Your task to perform on an android device: set default search engine in the chrome app Image 0: 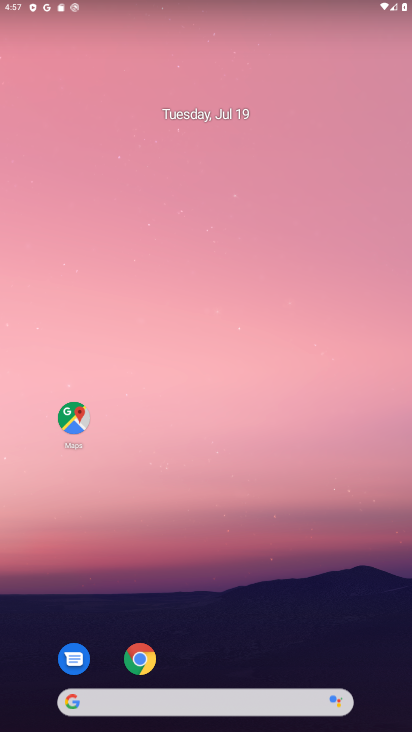
Step 0: drag from (242, 609) to (219, 98)
Your task to perform on an android device: set default search engine in the chrome app Image 1: 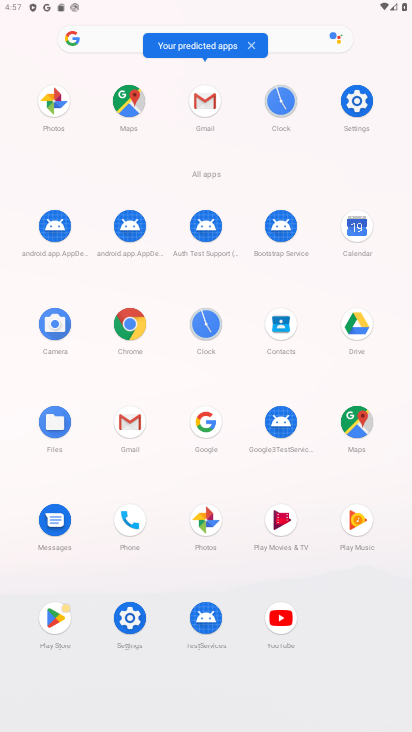
Step 1: click (124, 324)
Your task to perform on an android device: set default search engine in the chrome app Image 2: 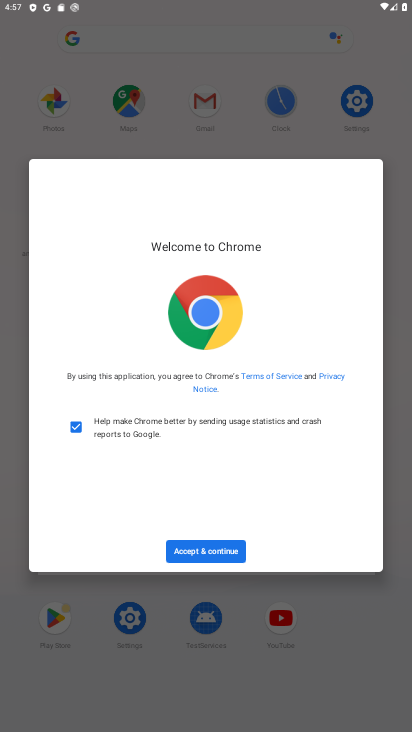
Step 2: click (216, 546)
Your task to perform on an android device: set default search engine in the chrome app Image 3: 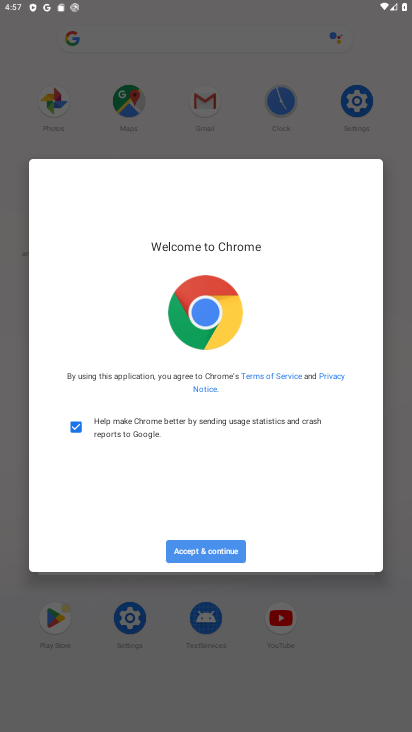
Step 3: click (234, 556)
Your task to perform on an android device: set default search engine in the chrome app Image 4: 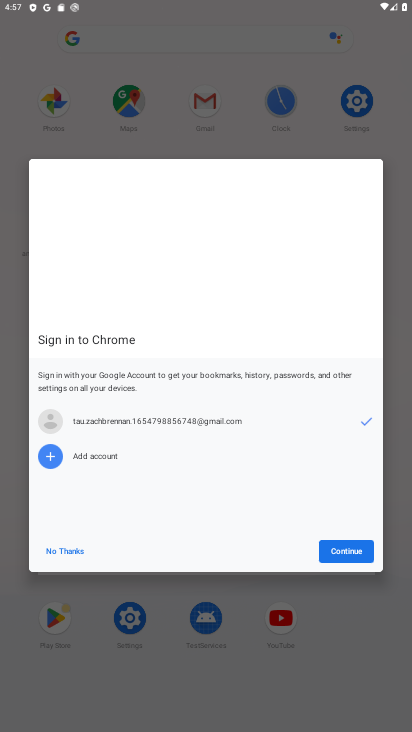
Step 4: click (234, 553)
Your task to perform on an android device: set default search engine in the chrome app Image 5: 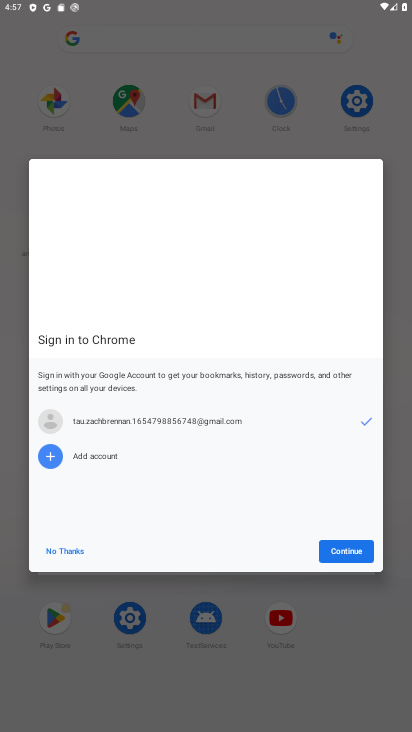
Step 5: click (341, 549)
Your task to perform on an android device: set default search engine in the chrome app Image 6: 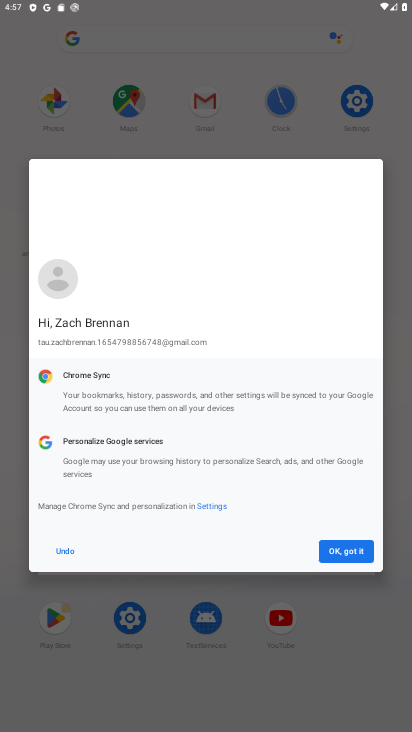
Step 6: click (336, 547)
Your task to perform on an android device: set default search engine in the chrome app Image 7: 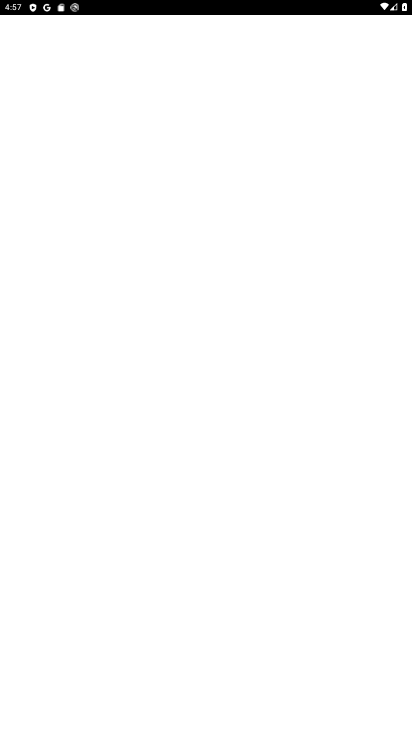
Step 7: click (337, 548)
Your task to perform on an android device: set default search engine in the chrome app Image 8: 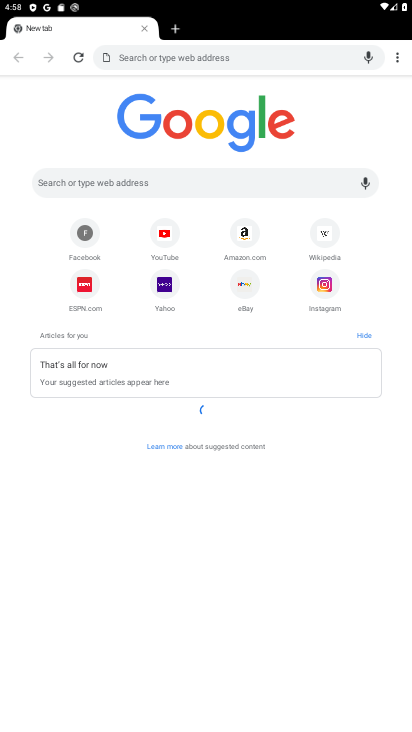
Step 8: drag from (395, 50) to (291, 268)
Your task to perform on an android device: set default search engine in the chrome app Image 9: 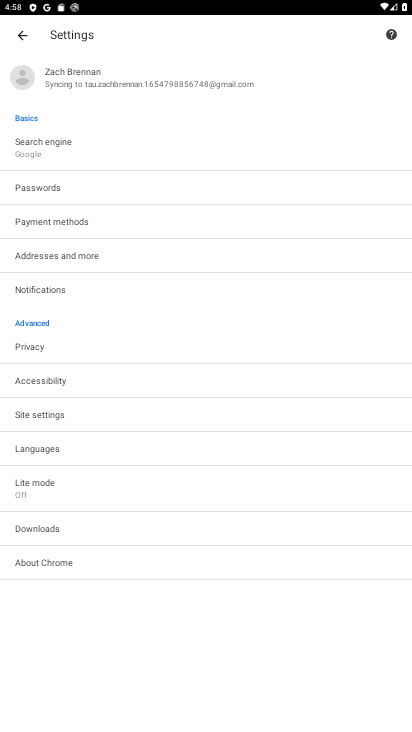
Step 9: click (88, 145)
Your task to perform on an android device: set default search engine in the chrome app Image 10: 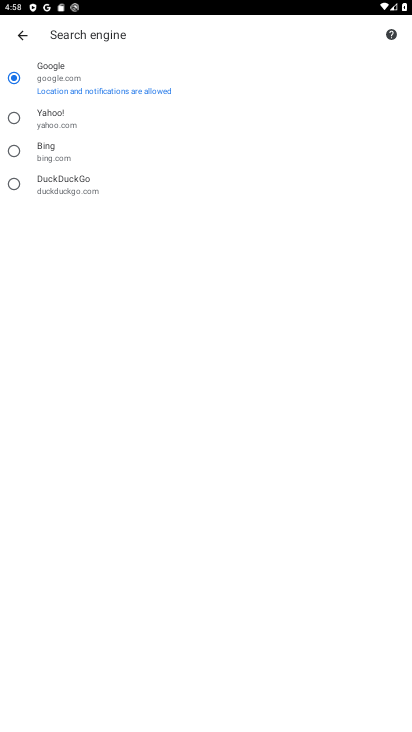
Step 10: click (45, 154)
Your task to perform on an android device: set default search engine in the chrome app Image 11: 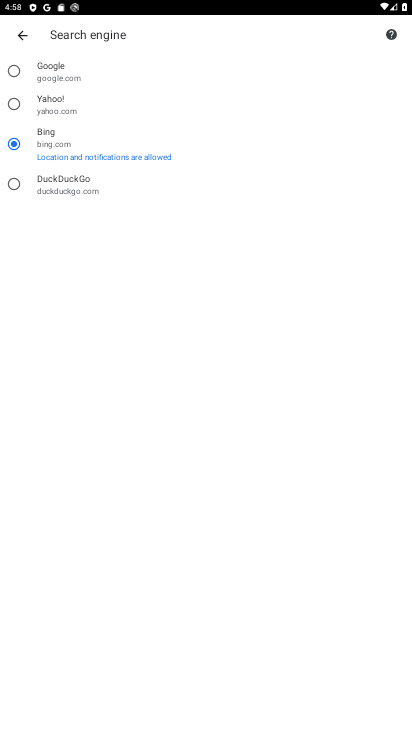
Step 11: click (55, 74)
Your task to perform on an android device: set default search engine in the chrome app Image 12: 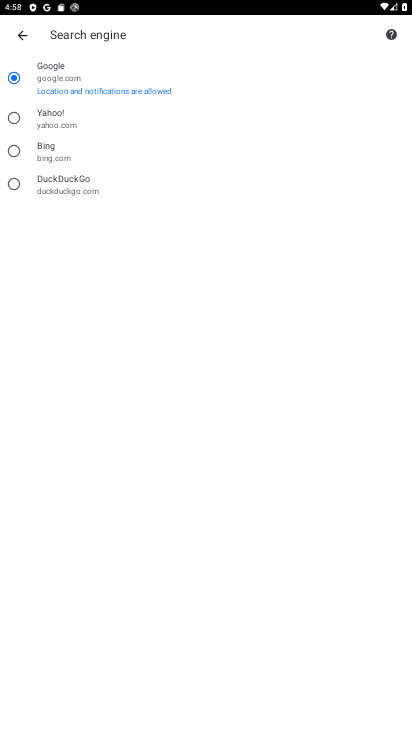
Step 12: click (17, 72)
Your task to perform on an android device: set default search engine in the chrome app Image 13: 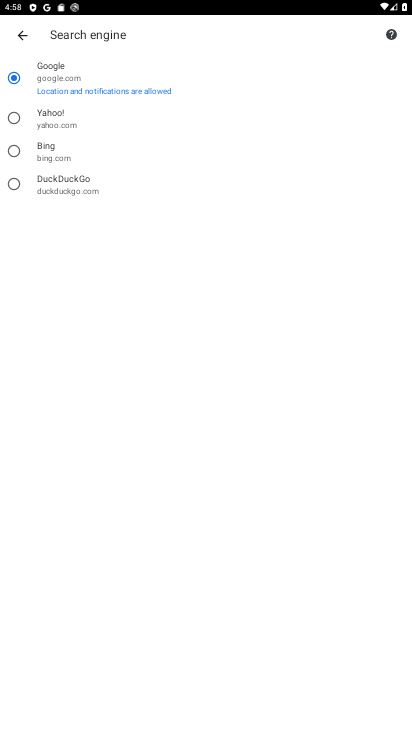
Step 13: task complete